Your task to perform on an android device: Go to Wikipedia Image 0: 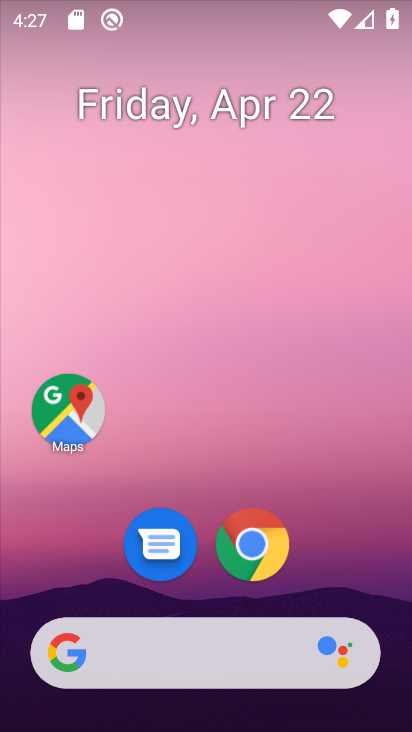
Step 0: drag from (217, 619) to (273, 237)
Your task to perform on an android device: Go to Wikipedia Image 1: 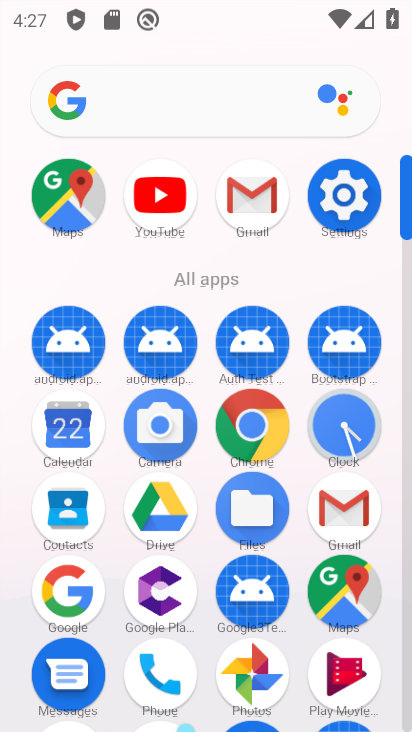
Step 1: click (250, 430)
Your task to perform on an android device: Go to Wikipedia Image 2: 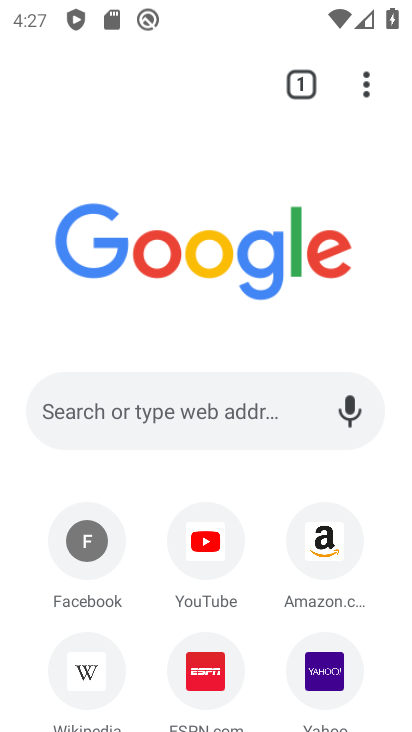
Step 2: click (107, 666)
Your task to perform on an android device: Go to Wikipedia Image 3: 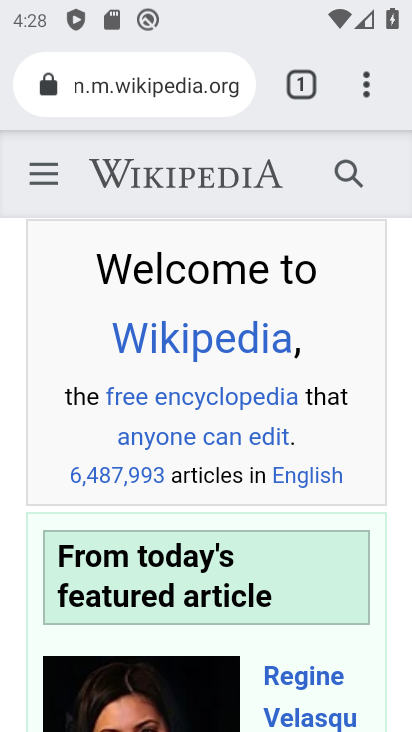
Step 3: task complete